Your task to perform on an android device: refresh tabs in the chrome app Image 0: 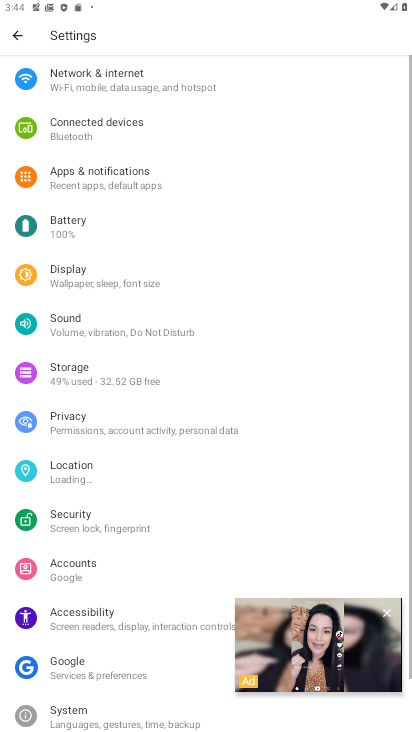
Step 0: click (382, 610)
Your task to perform on an android device: refresh tabs in the chrome app Image 1: 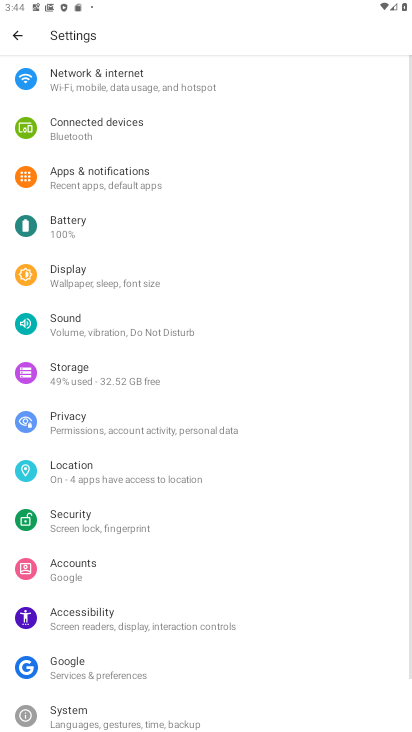
Step 1: press home button
Your task to perform on an android device: refresh tabs in the chrome app Image 2: 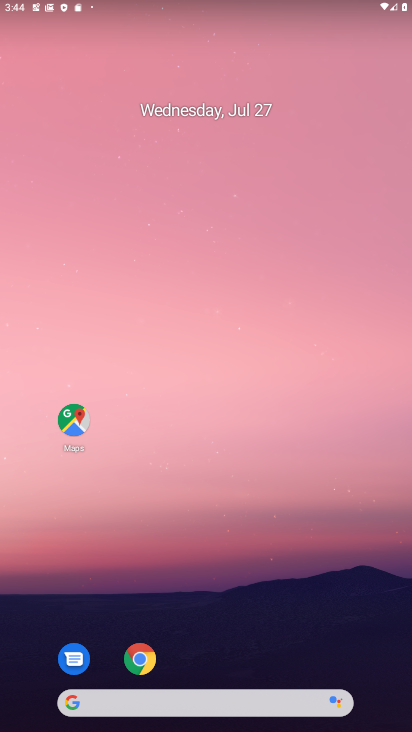
Step 2: click (141, 666)
Your task to perform on an android device: refresh tabs in the chrome app Image 3: 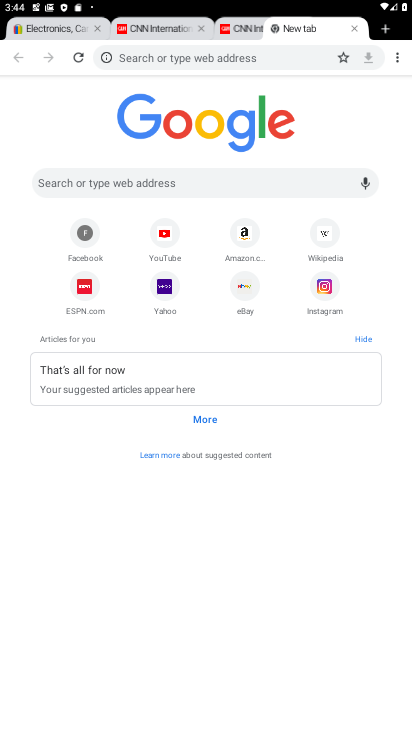
Step 3: click (83, 57)
Your task to perform on an android device: refresh tabs in the chrome app Image 4: 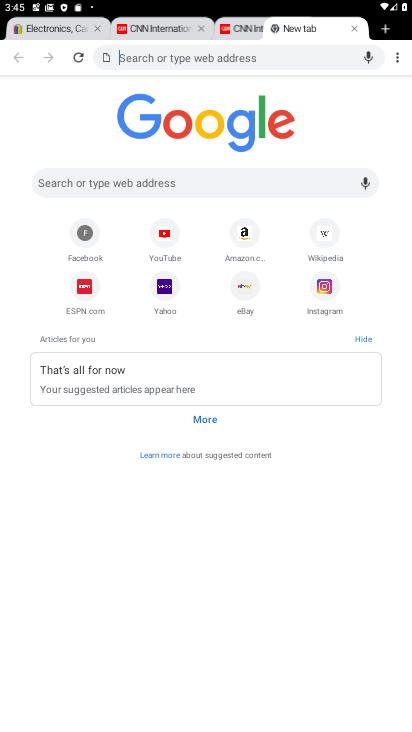
Step 4: task complete